Your task to perform on an android device: change text size in settings app Image 0: 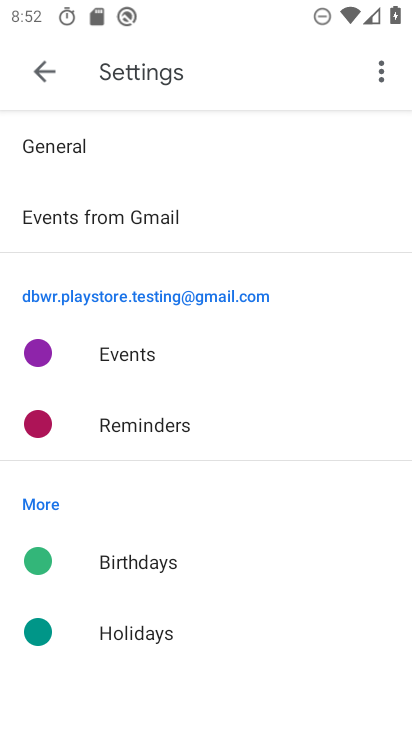
Step 0: press home button
Your task to perform on an android device: change text size in settings app Image 1: 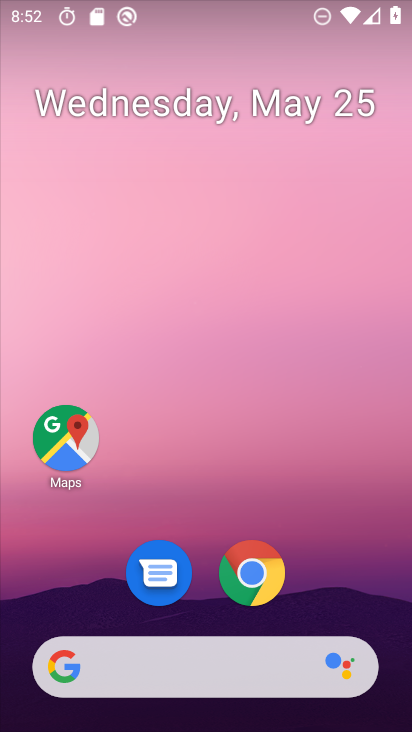
Step 1: drag from (402, 712) to (360, 296)
Your task to perform on an android device: change text size in settings app Image 2: 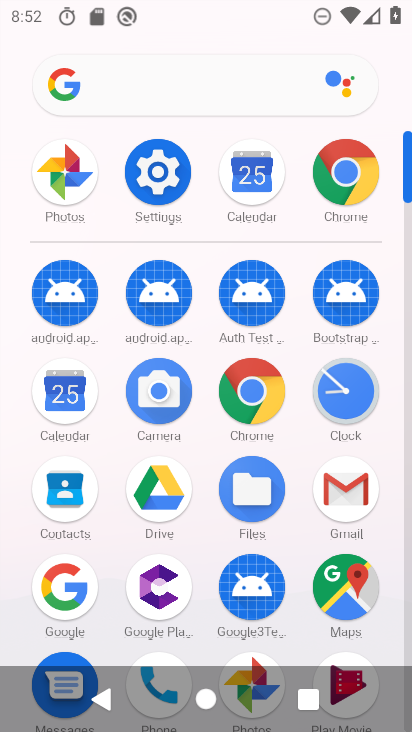
Step 2: click (163, 165)
Your task to perform on an android device: change text size in settings app Image 3: 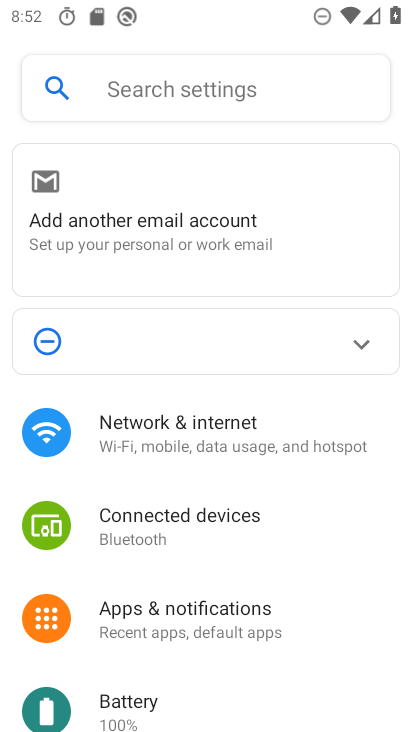
Step 3: drag from (311, 688) to (284, 295)
Your task to perform on an android device: change text size in settings app Image 4: 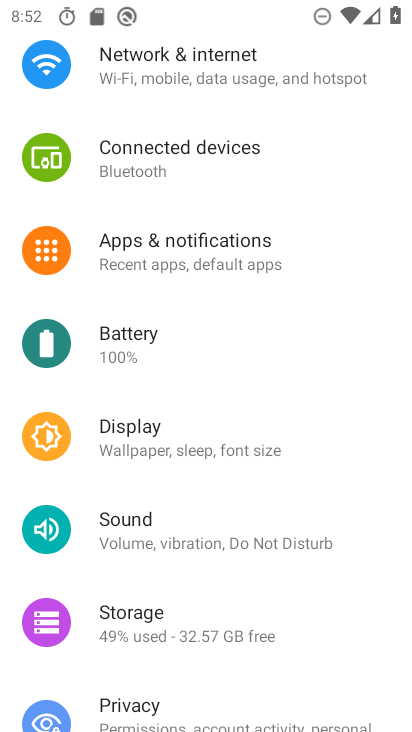
Step 4: drag from (245, 690) to (234, 359)
Your task to perform on an android device: change text size in settings app Image 5: 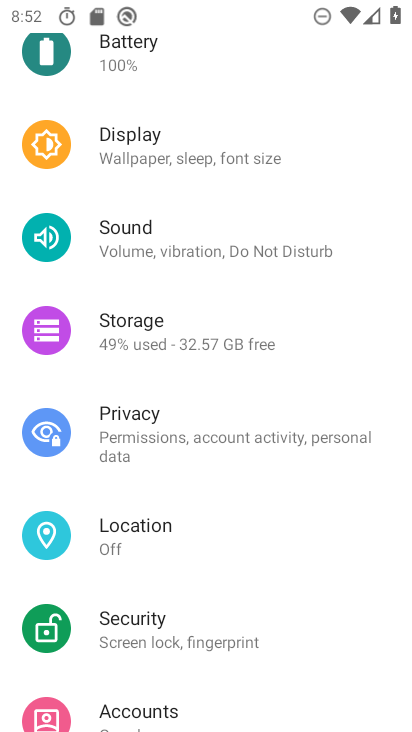
Step 5: drag from (265, 593) to (260, 343)
Your task to perform on an android device: change text size in settings app Image 6: 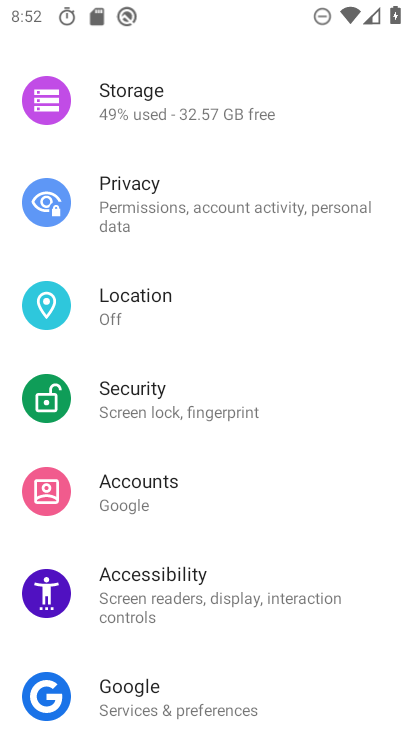
Step 6: drag from (335, 512) to (338, 592)
Your task to perform on an android device: change text size in settings app Image 7: 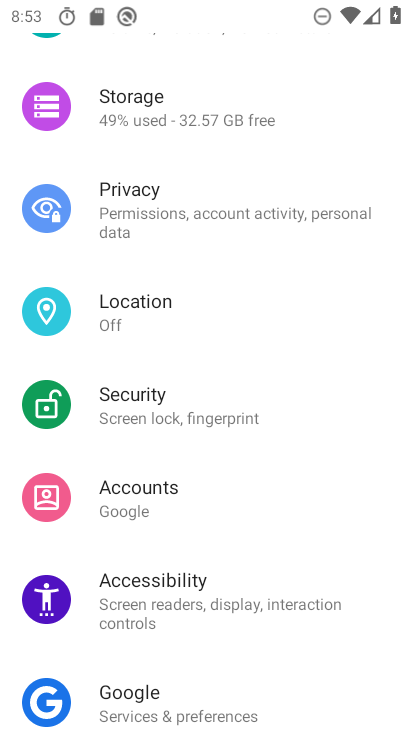
Step 7: drag from (320, 148) to (356, 562)
Your task to perform on an android device: change text size in settings app Image 8: 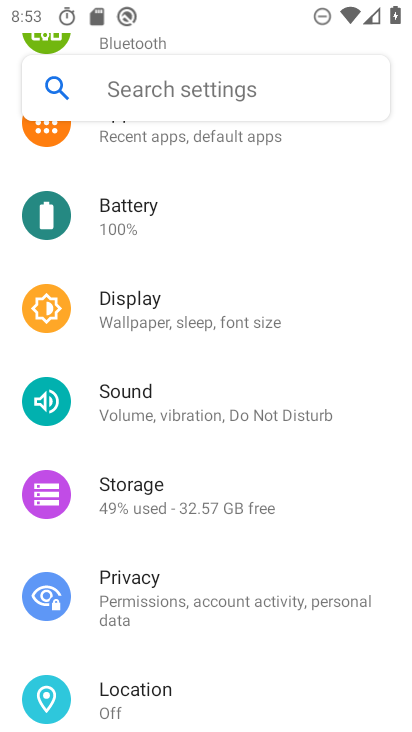
Step 8: click (129, 310)
Your task to perform on an android device: change text size in settings app Image 9: 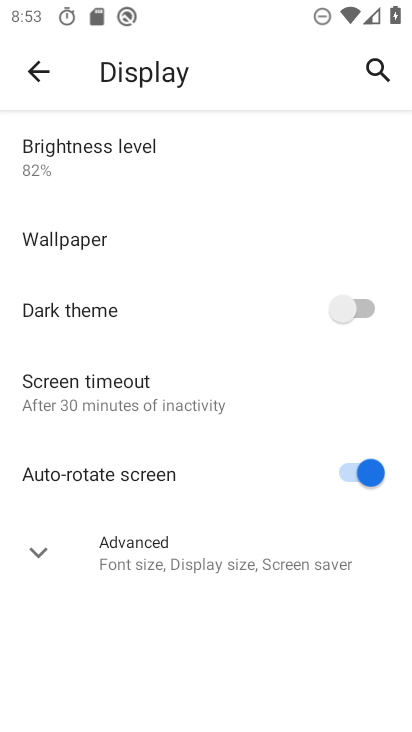
Step 9: click (23, 561)
Your task to perform on an android device: change text size in settings app Image 10: 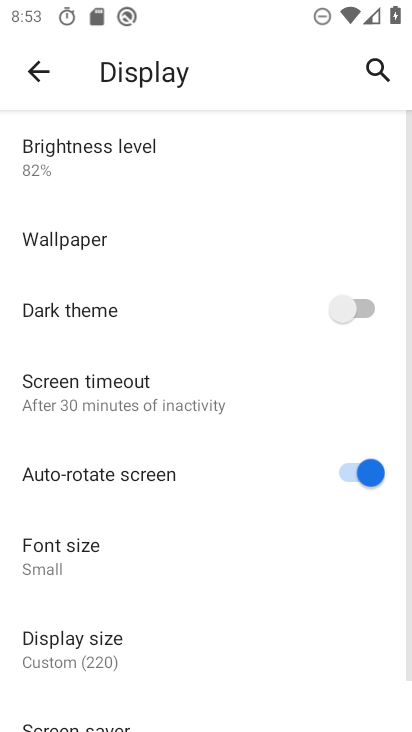
Step 10: drag from (254, 664) to (231, 292)
Your task to perform on an android device: change text size in settings app Image 11: 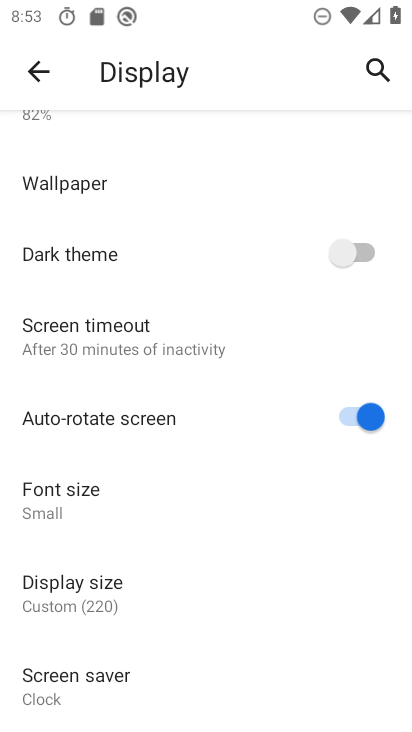
Step 11: click (83, 493)
Your task to perform on an android device: change text size in settings app Image 12: 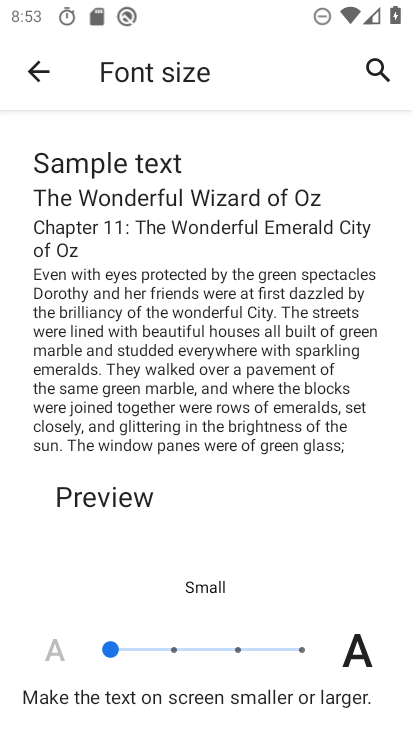
Step 12: click (167, 651)
Your task to perform on an android device: change text size in settings app Image 13: 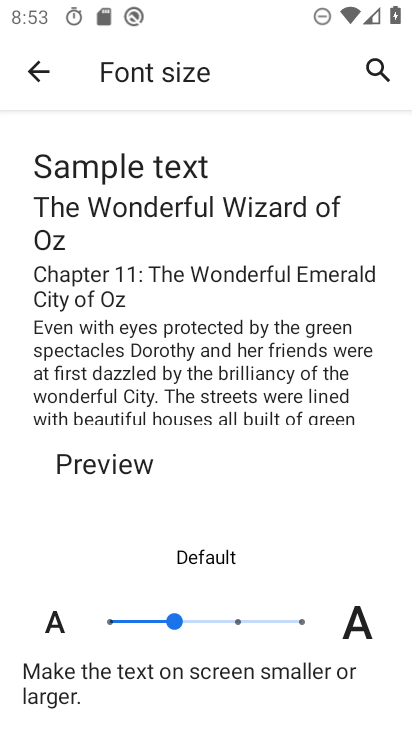
Step 13: task complete